Your task to perform on an android device: change keyboard looks Image 0: 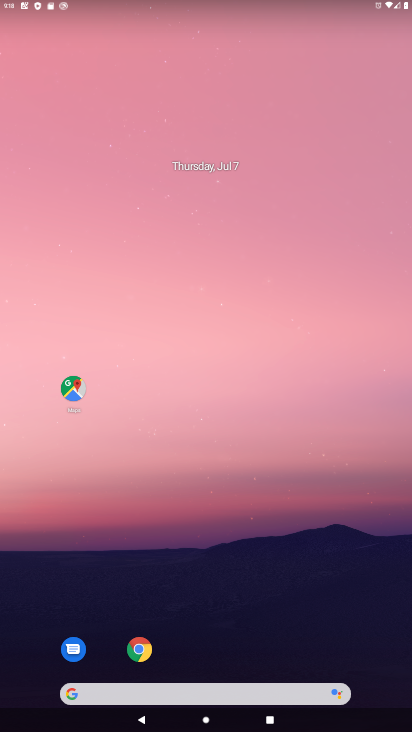
Step 0: drag from (254, 579) to (334, 177)
Your task to perform on an android device: change keyboard looks Image 1: 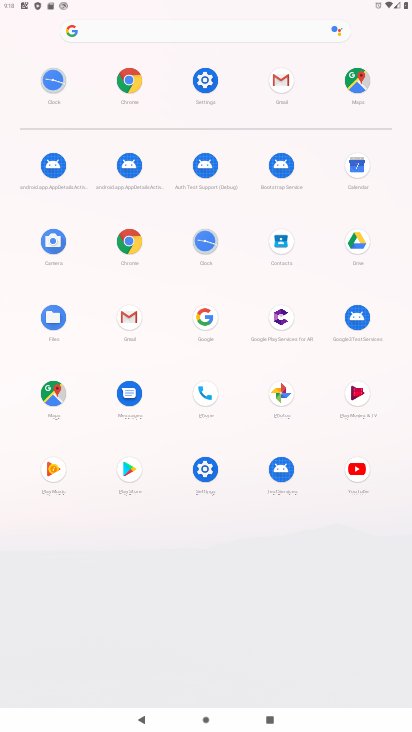
Step 1: click (199, 79)
Your task to perform on an android device: change keyboard looks Image 2: 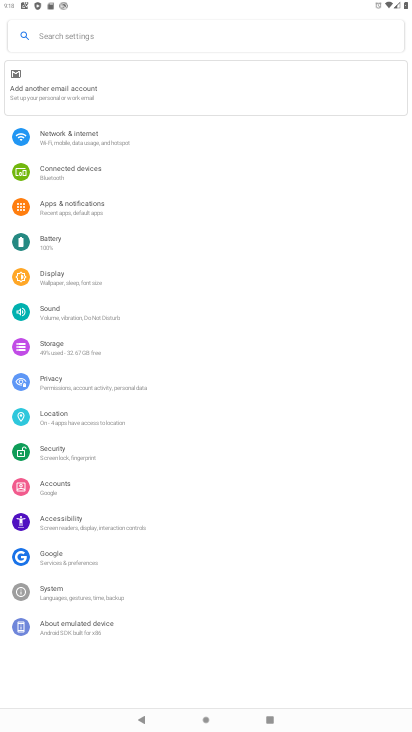
Step 2: click (65, 591)
Your task to perform on an android device: change keyboard looks Image 3: 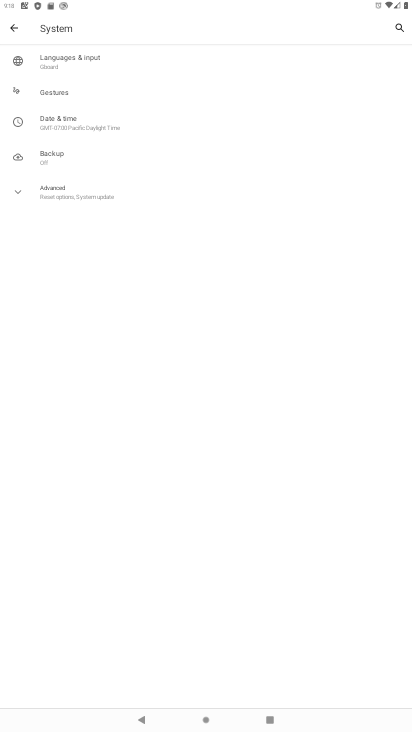
Step 3: click (65, 67)
Your task to perform on an android device: change keyboard looks Image 4: 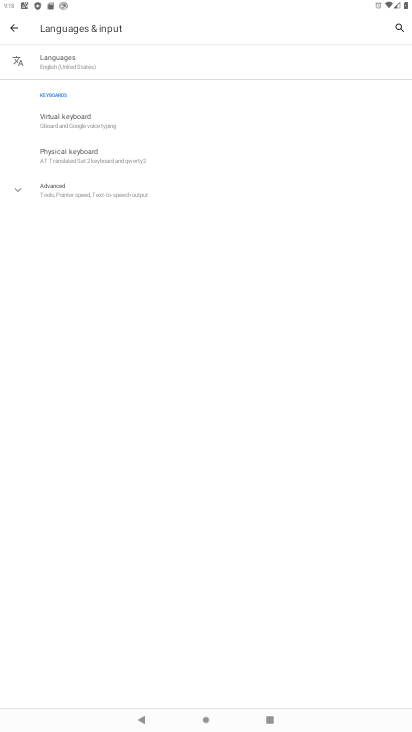
Step 4: click (77, 110)
Your task to perform on an android device: change keyboard looks Image 5: 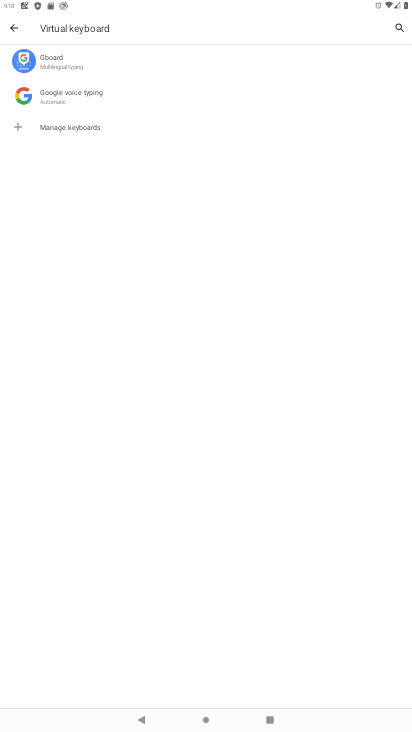
Step 5: click (70, 69)
Your task to perform on an android device: change keyboard looks Image 6: 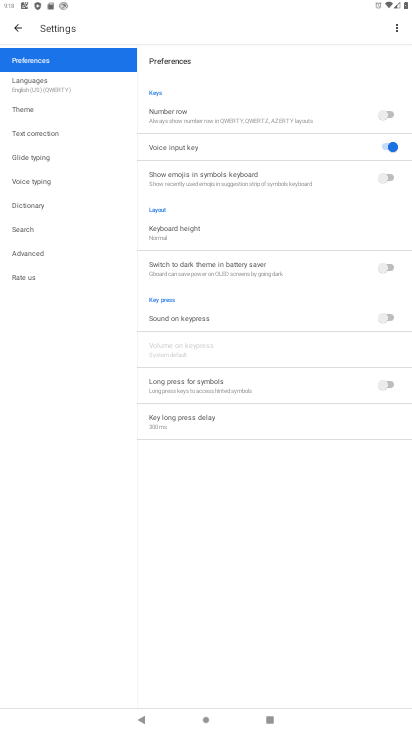
Step 6: click (33, 108)
Your task to perform on an android device: change keyboard looks Image 7: 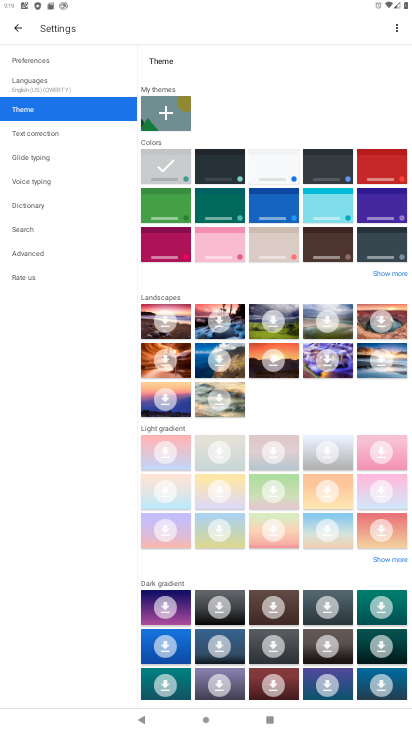
Step 7: click (372, 165)
Your task to perform on an android device: change keyboard looks Image 8: 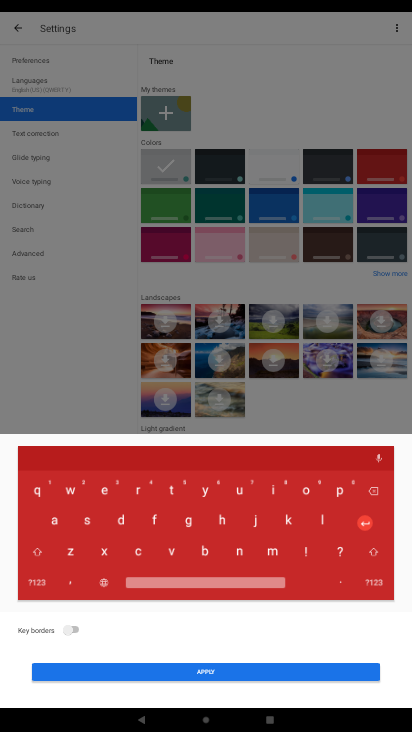
Step 8: click (300, 673)
Your task to perform on an android device: change keyboard looks Image 9: 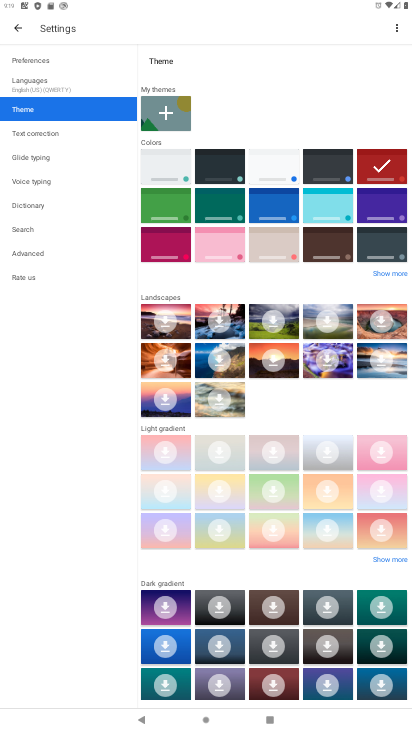
Step 9: task complete